Your task to perform on an android device: check google app version Image 0: 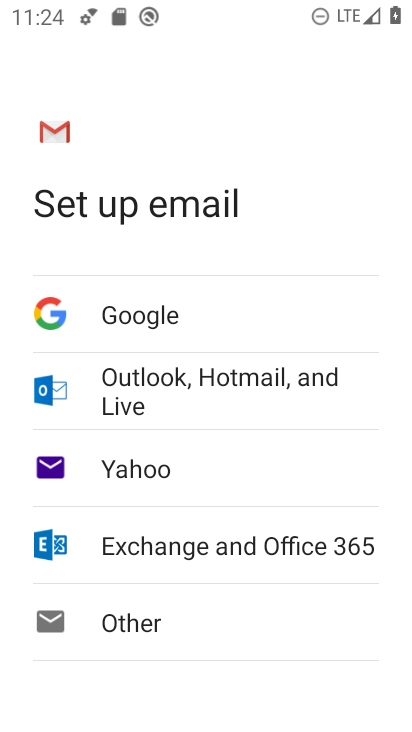
Step 0: press home button
Your task to perform on an android device: check google app version Image 1: 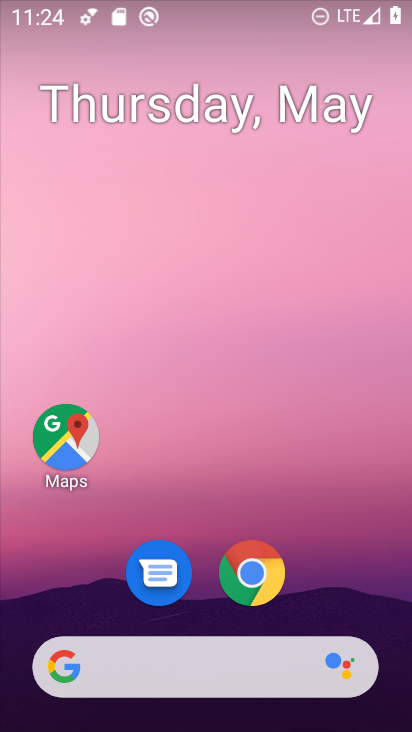
Step 1: drag from (318, 585) to (246, 10)
Your task to perform on an android device: check google app version Image 2: 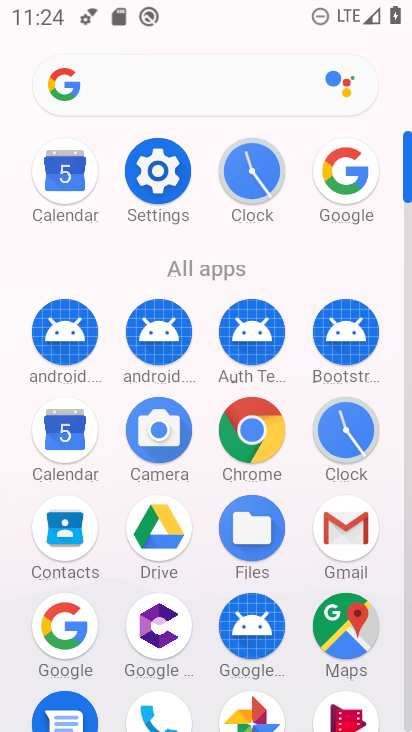
Step 2: click (344, 172)
Your task to perform on an android device: check google app version Image 3: 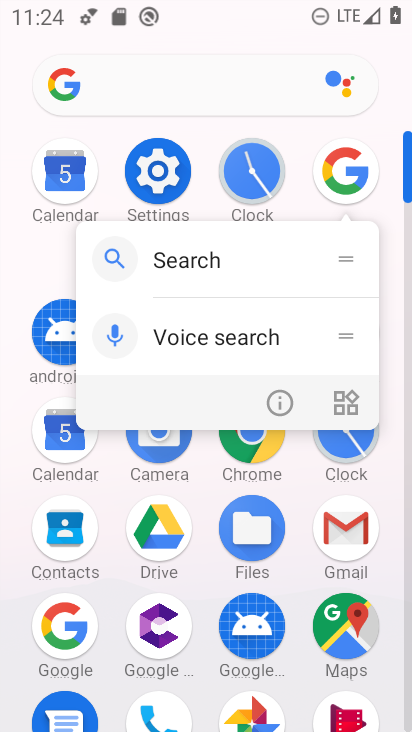
Step 3: click (284, 400)
Your task to perform on an android device: check google app version Image 4: 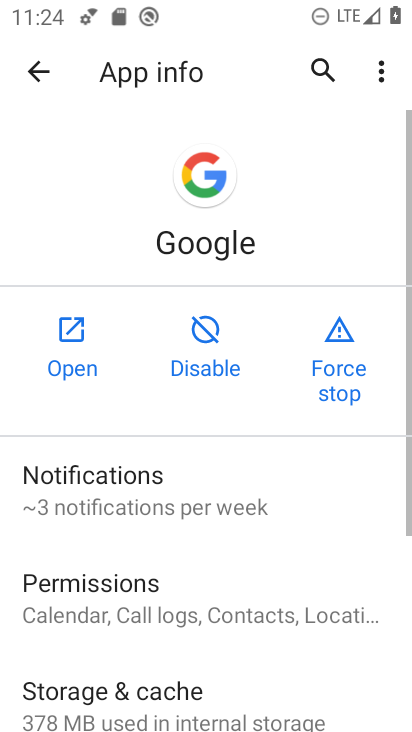
Step 4: drag from (197, 537) to (244, 384)
Your task to perform on an android device: check google app version Image 5: 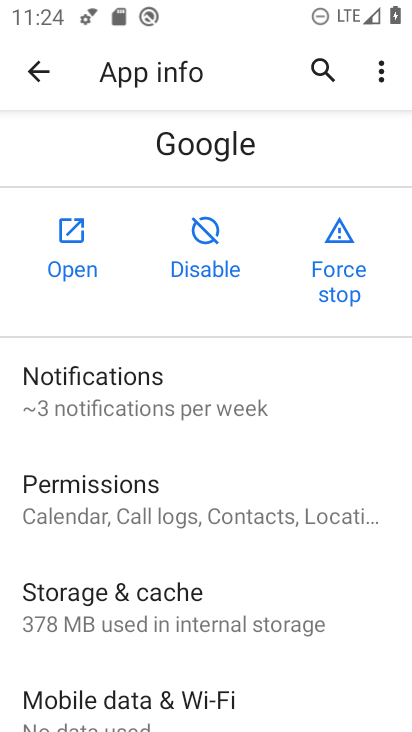
Step 5: drag from (215, 569) to (259, 450)
Your task to perform on an android device: check google app version Image 6: 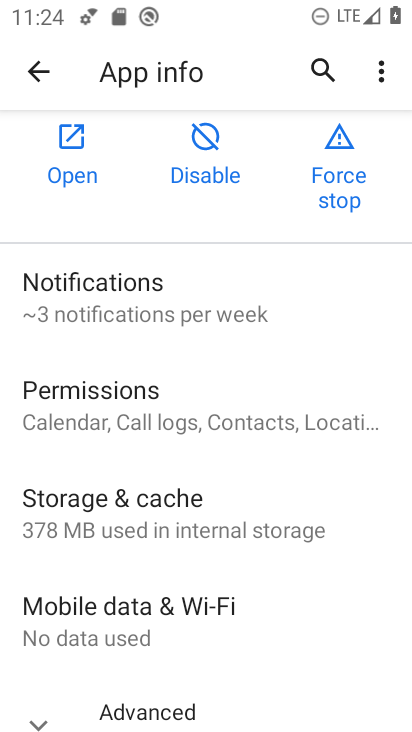
Step 6: drag from (249, 659) to (310, 520)
Your task to perform on an android device: check google app version Image 7: 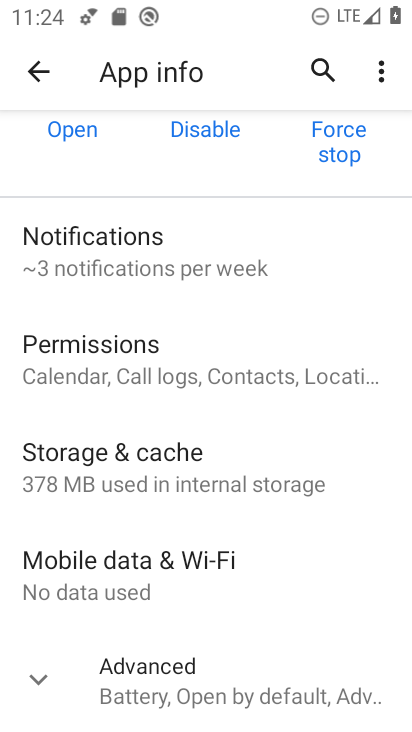
Step 7: click (196, 681)
Your task to perform on an android device: check google app version Image 8: 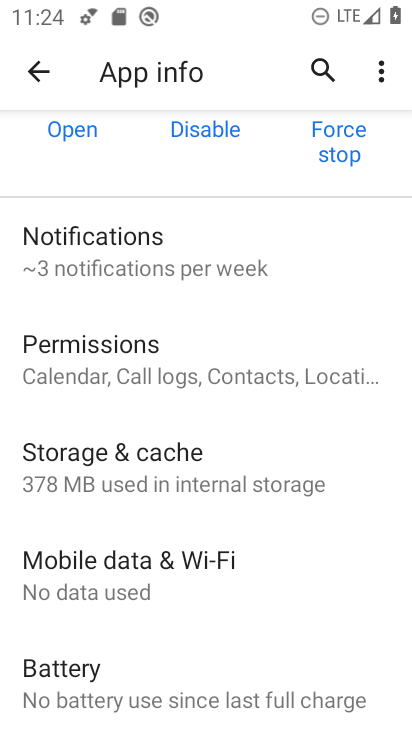
Step 8: task complete